Your task to perform on an android device: set the timer Image 0: 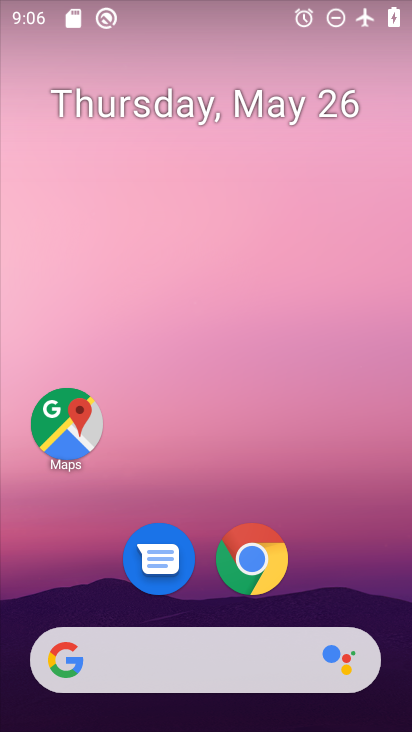
Step 0: press home button
Your task to perform on an android device: set the timer Image 1: 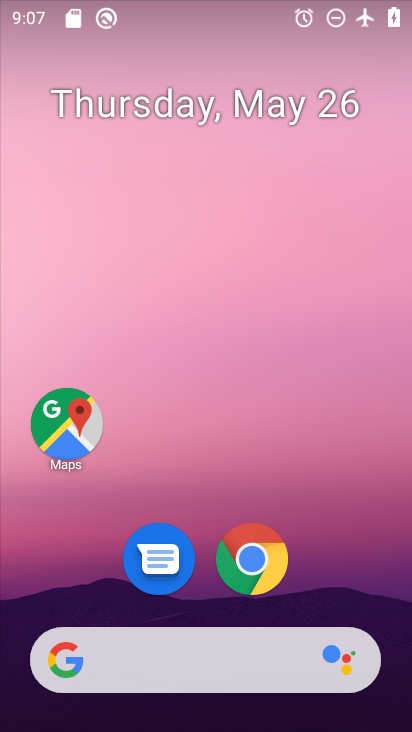
Step 1: drag from (288, 582) to (304, 62)
Your task to perform on an android device: set the timer Image 2: 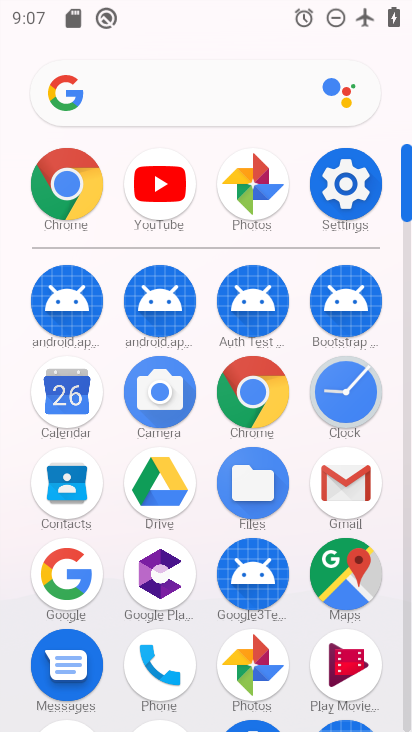
Step 2: click (350, 402)
Your task to perform on an android device: set the timer Image 3: 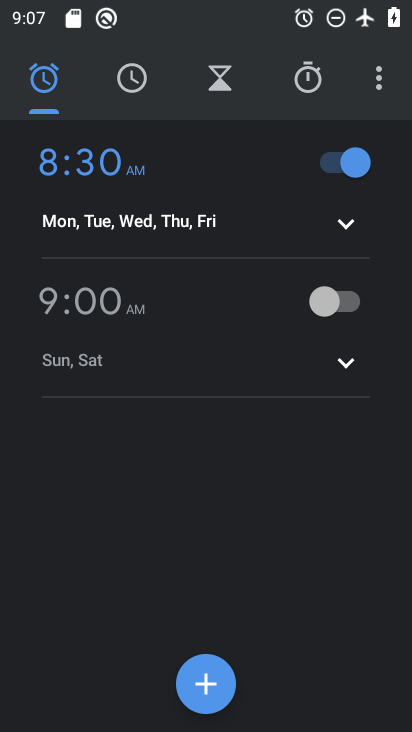
Step 3: click (227, 76)
Your task to perform on an android device: set the timer Image 4: 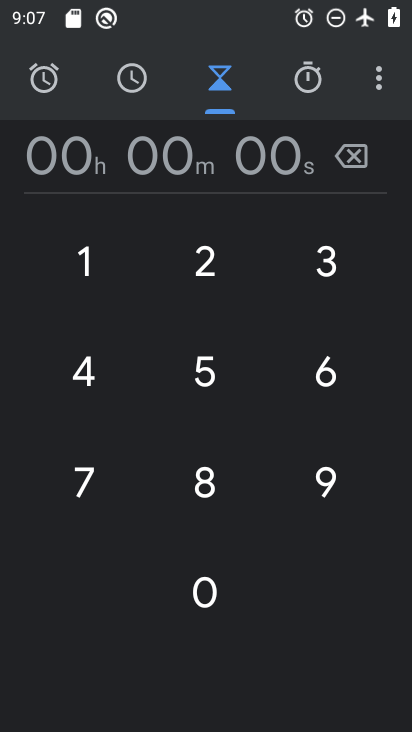
Step 4: click (219, 311)
Your task to perform on an android device: set the timer Image 5: 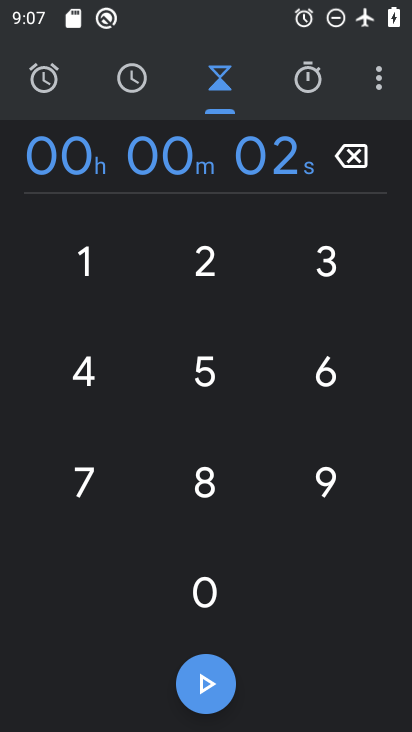
Step 5: click (219, 311)
Your task to perform on an android device: set the timer Image 6: 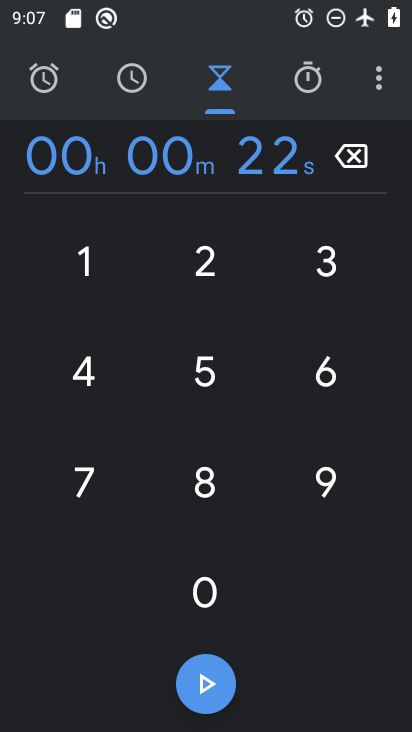
Step 6: task complete